Your task to perform on an android device: turn on wifi Image 0: 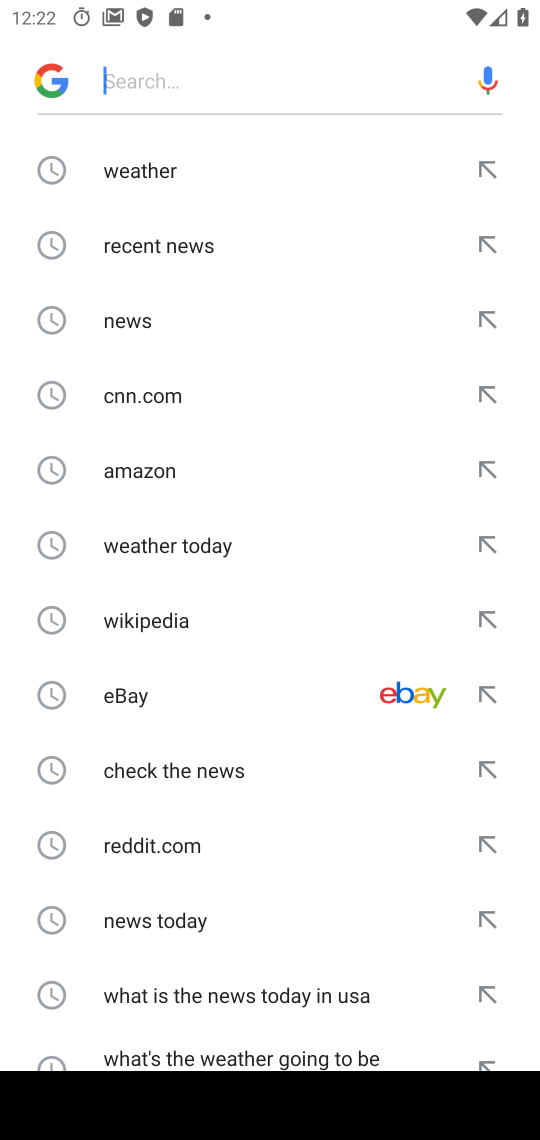
Step 0: press back button
Your task to perform on an android device: turn on wifi Image 1: 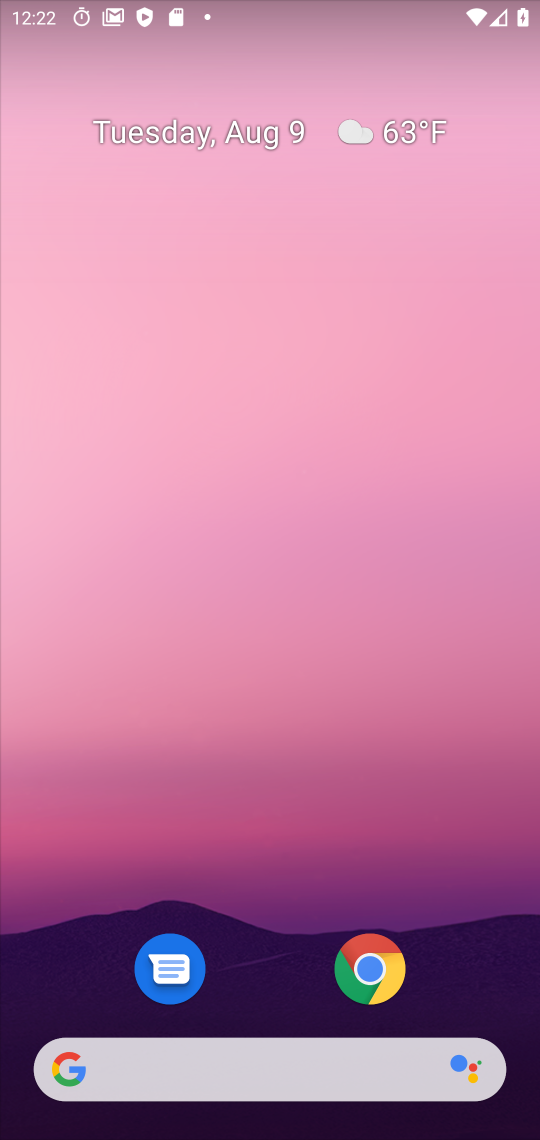
Step 1: drag from (280, 1062) to (242, 161)
Your task to perform on an android device: turn on wifi Image 2: 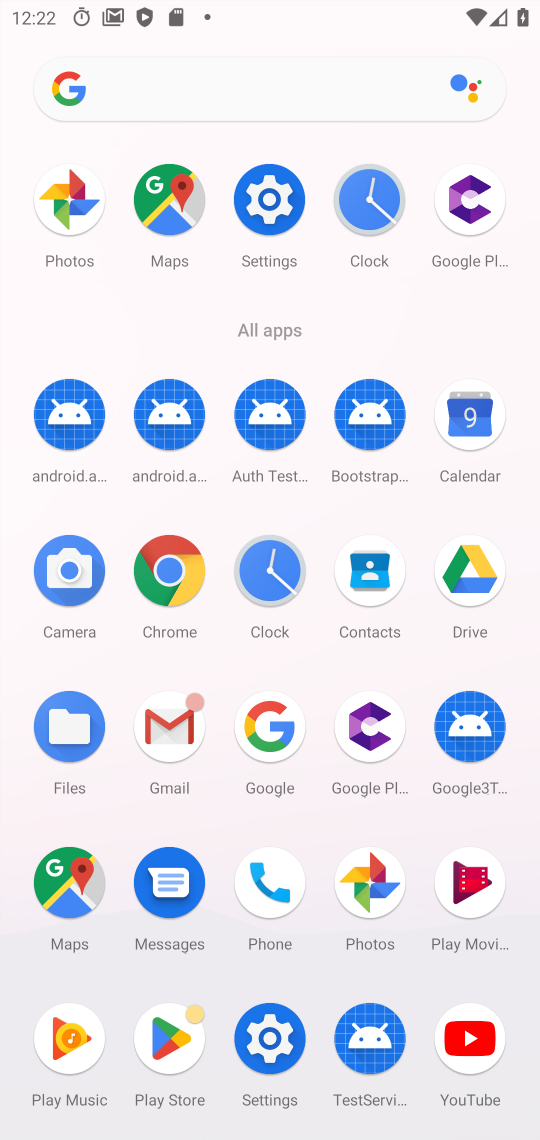
Step 2: click (248, 219)
Your task to perform on an android device: turn on wifi Image 3: 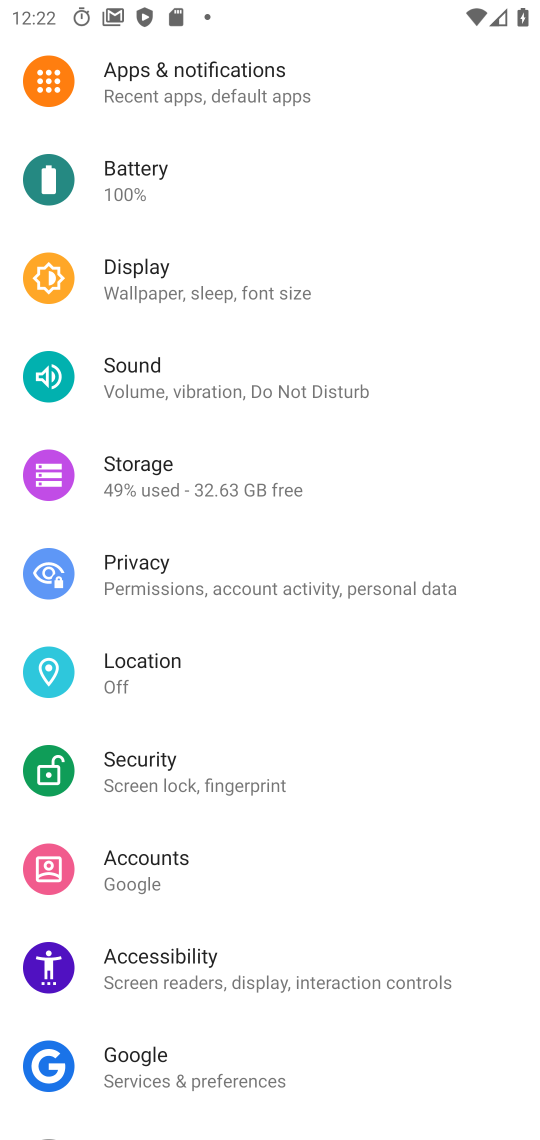
Step 3: drag from (234, 122) to (227, 800)
Your task to perform on an android device: turn on wifi Image 4: 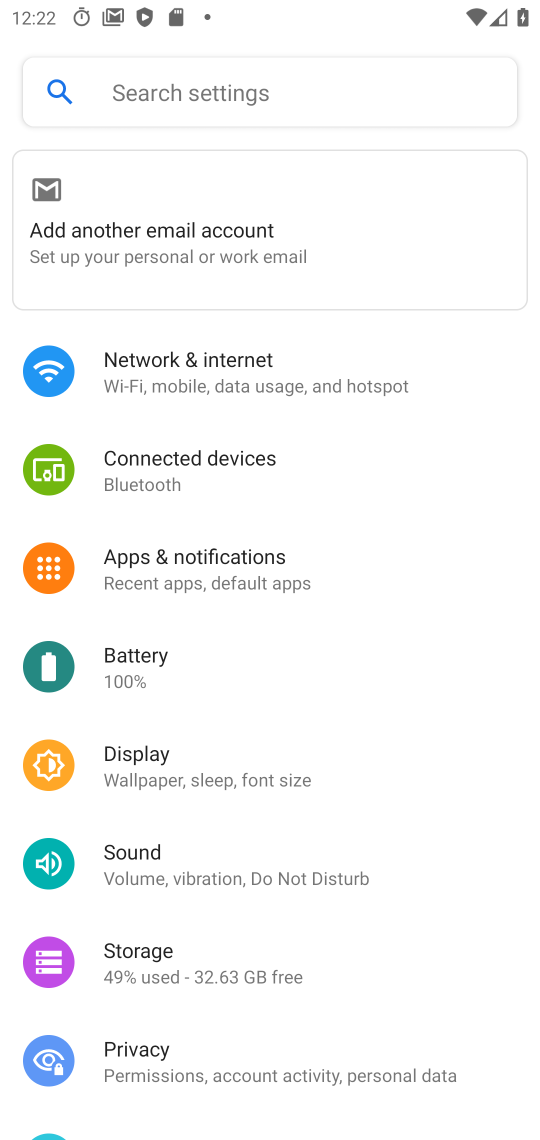
Step 4: click (213, 349)
Your task to perform on an android device: turn on wifi Image 5: 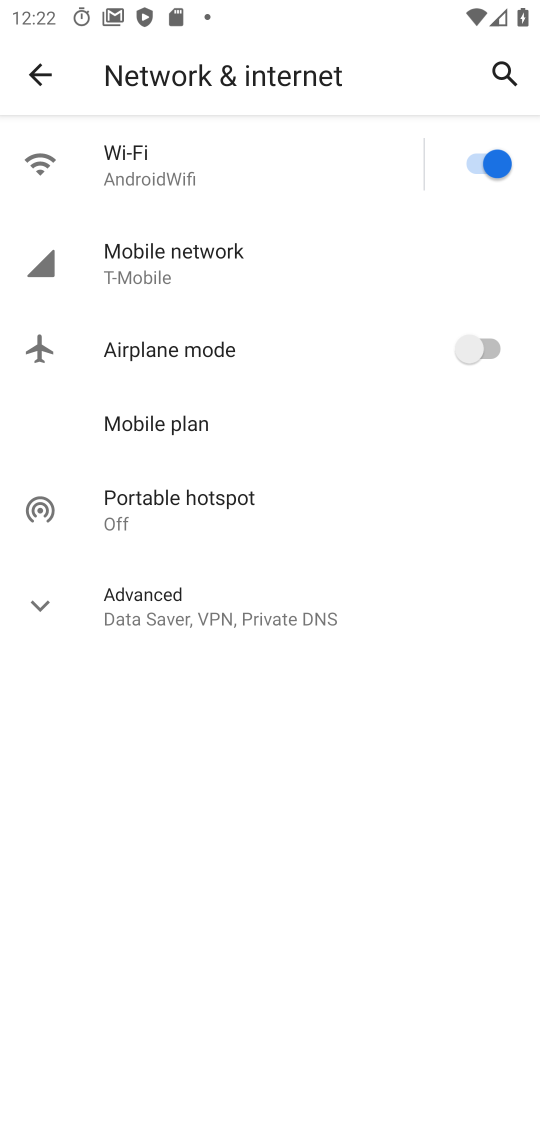
Step 5: task complete